Your task to perform on an android device: Go to display settings Image 0: 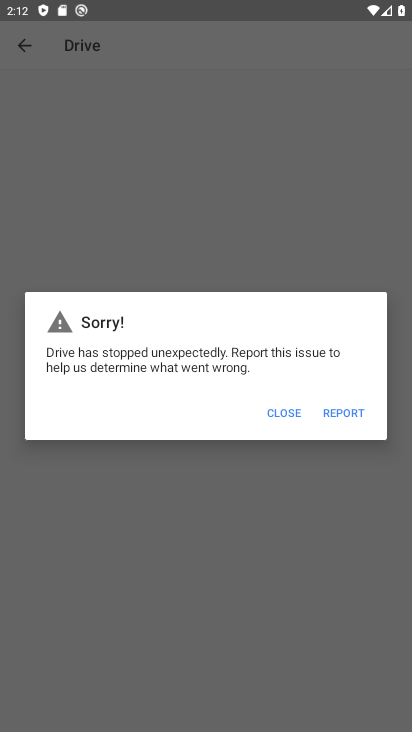
Step 0: press home button
Your task to perform on an android device: Go to display settings Image 1: 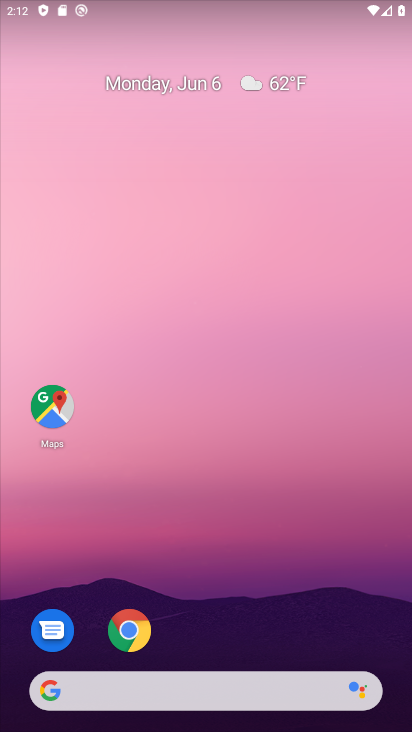
Step 1: drag from (195, 654) to (204, 59)
Your task to perform on an android device: Go to display settings Image 2: 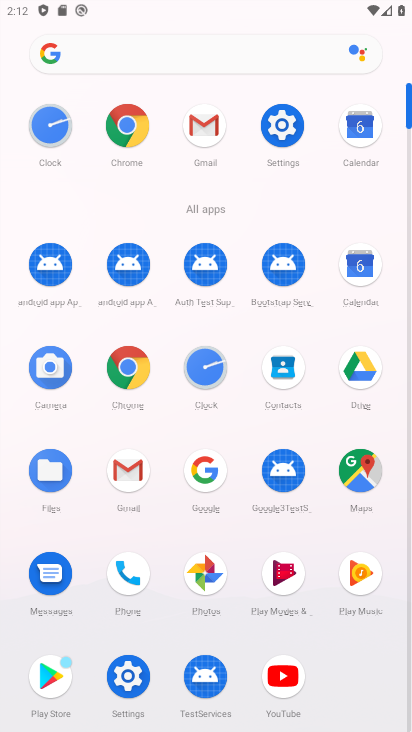
Step 2: click (119, 667)
Your task to perform on an android device: Go to display settings Image 3: 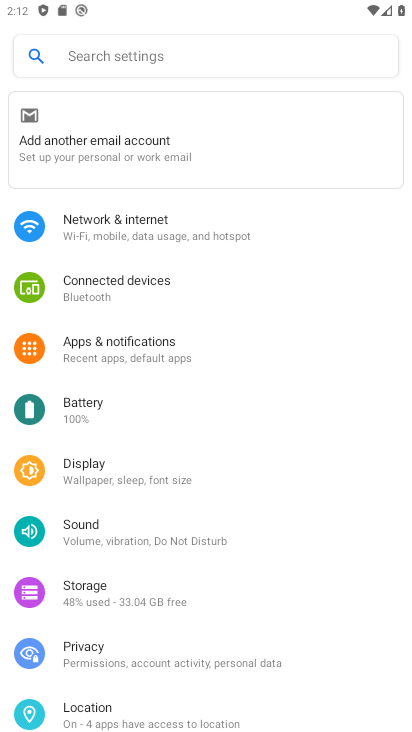
Step 3: click (115, 474)
Your task to perform on an android device: Go to display settings Image 4: 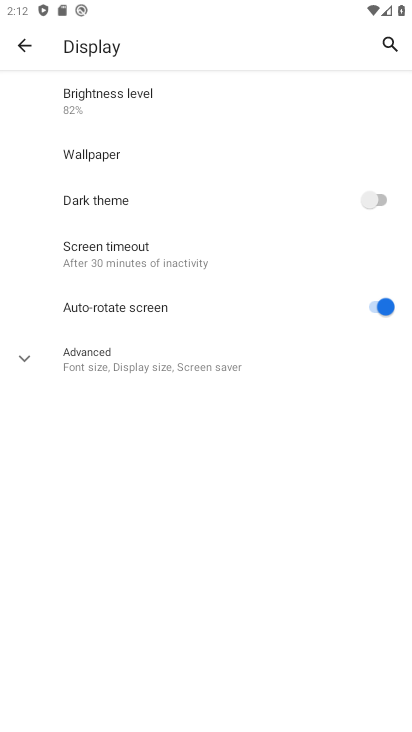
Step 4: task complete